Your task to perform on an android device: check android version Image 0: 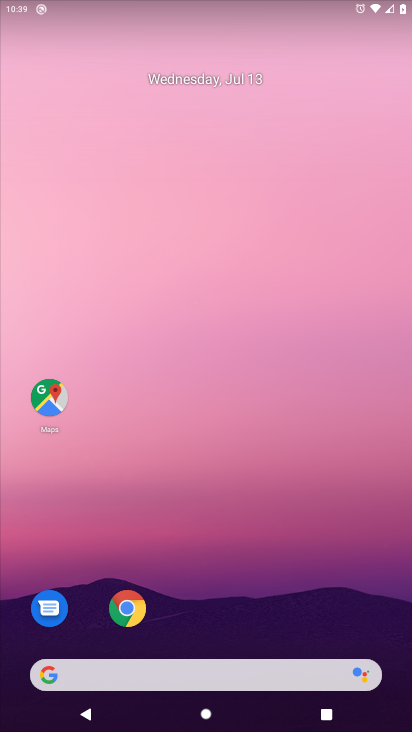
Step 0: drag from (83, 596) to (145, 52)
Your task to perform on an android device: check android version Image 1: 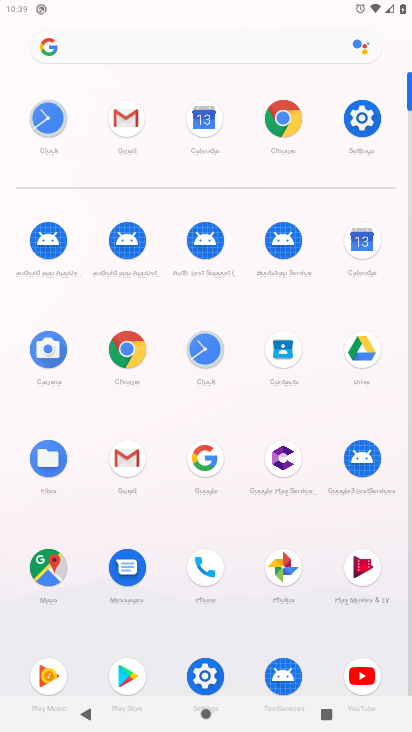
Step 1: click (198, 685)
Your task to perform on an android device: check android version Image 2: 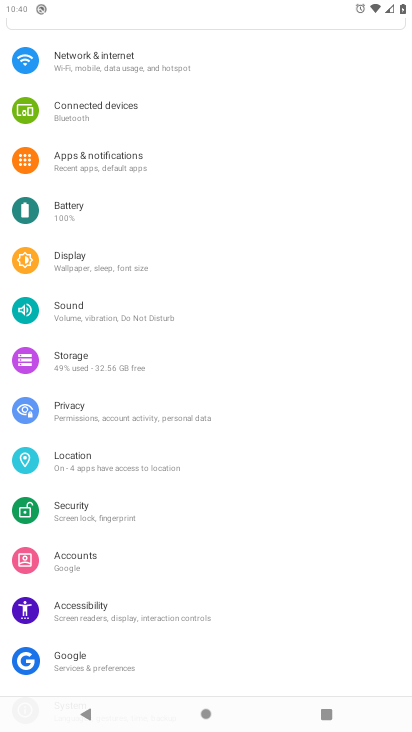
Step 2: drag from (165, 563) to (198, 397)
Your task to perform on an android device: check android version Image 3: 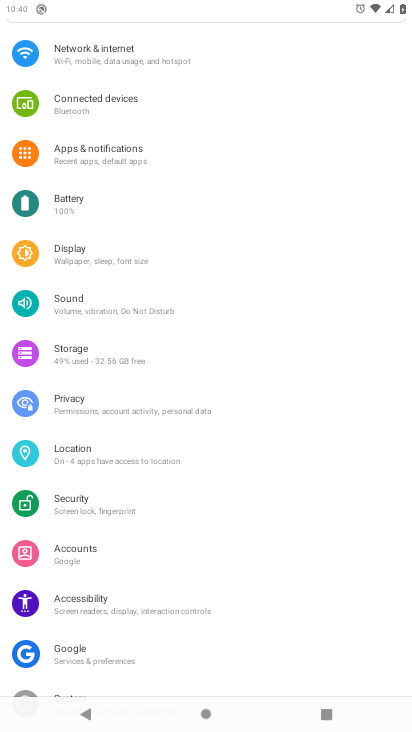
Step 3: drag from (172, 658) to (207, 352)
Your task to perform on an android device: check android version Image 4: 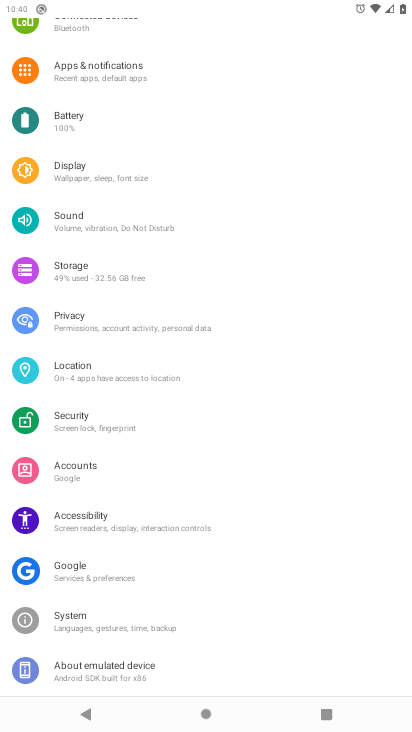
Step 4: click (114, 667)
Your task to perform on an android device: check android version Image 5: 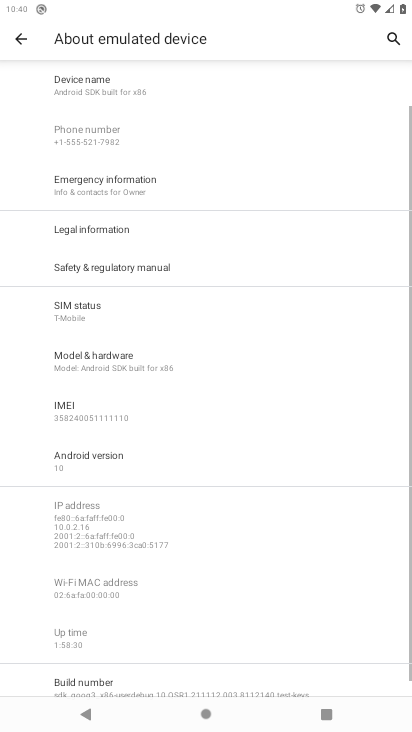
Step 5: click (95, 455)
Your task to perform on an android device: check android version Image 6: 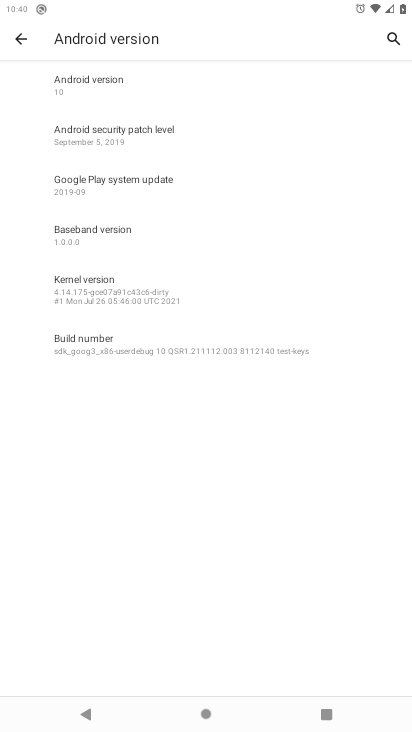
Step 6: task complete